Your task to perform on an android device: stop showing notifications on the lock screen Image 0: 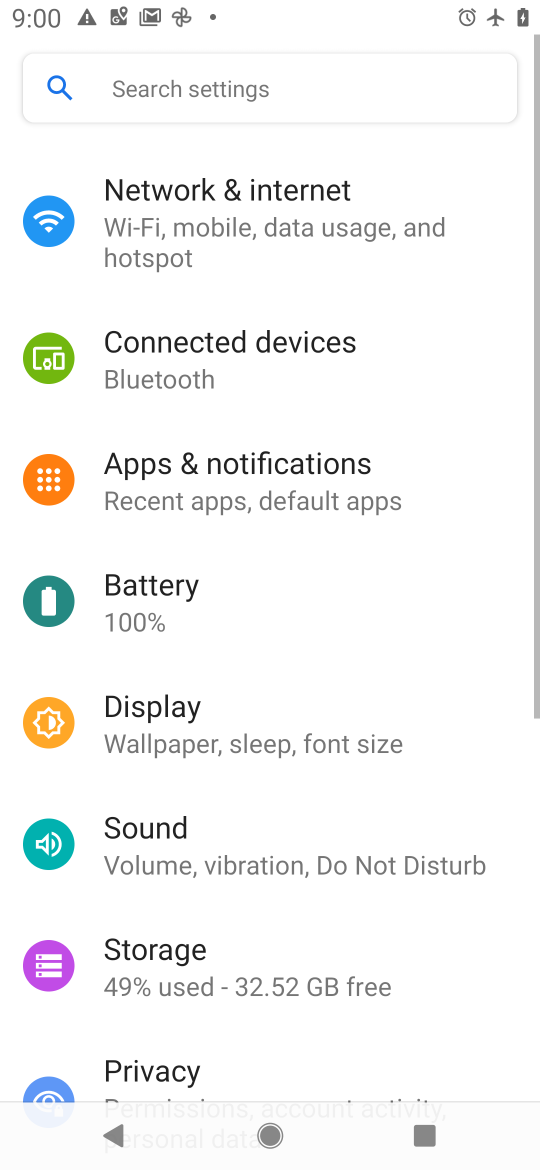
Step 0: drag from (505, 949) to (323, 163)
Your task to perform on an android device: stop showing notifications on the lock screen Image 1: 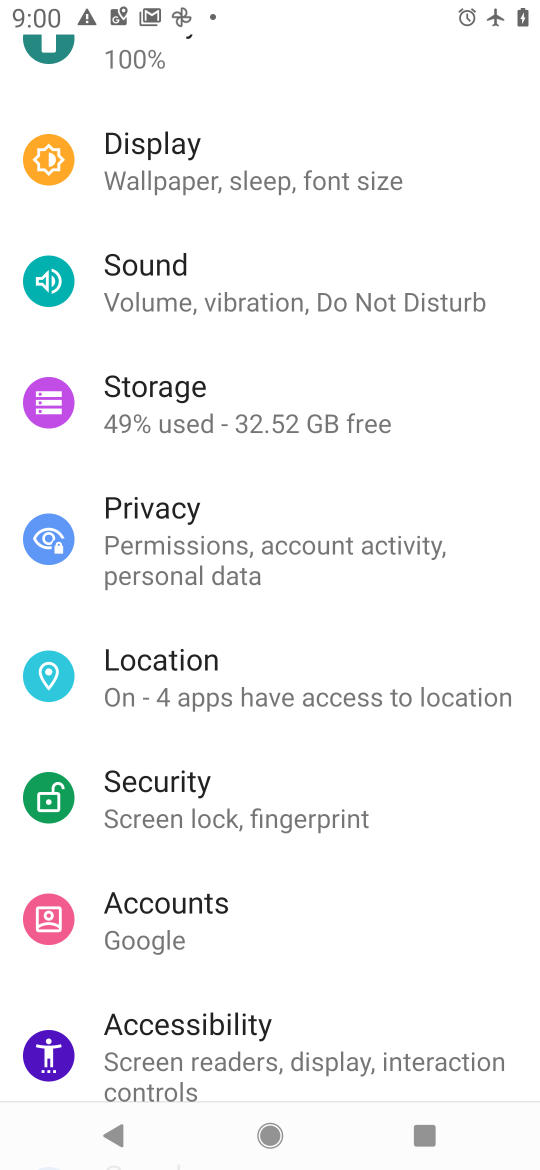
Step 1: drag from (297, 241) to (370, 1048)
Your task to perform on an android device: stop showing notifications on the lock screen Image 2: 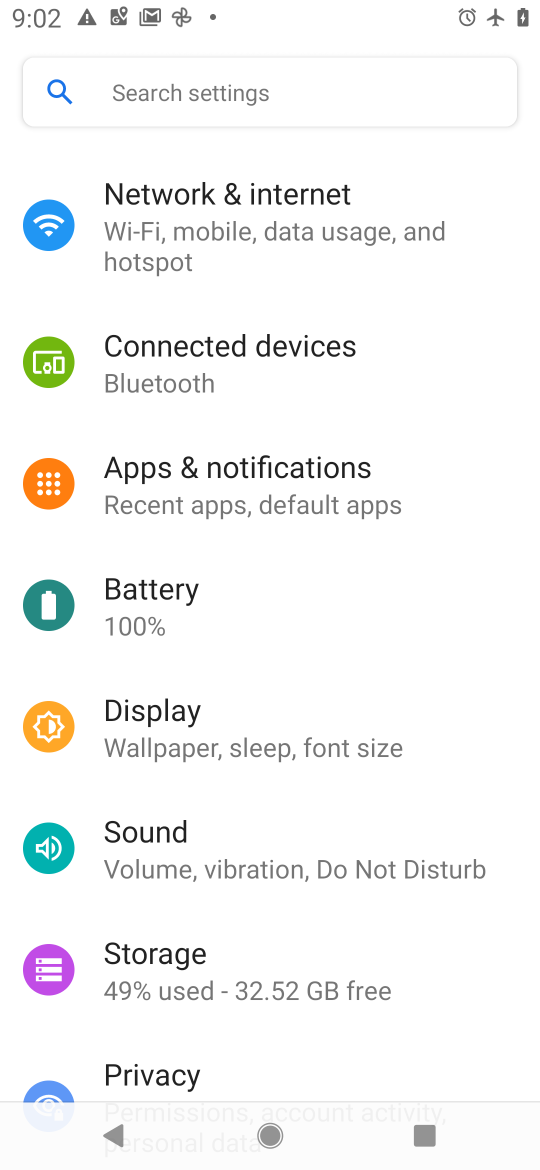
Step 2: click (236, 461)
Your task to perform on an android device: stop showing notifications on the lock screen Image 3: 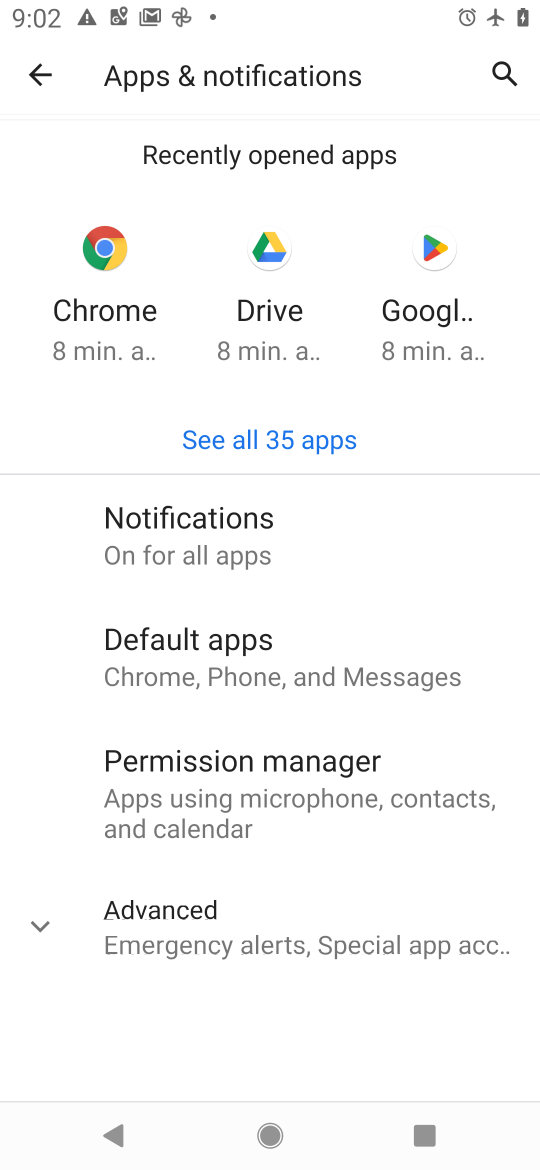
Step 3: click (194, 554)
Your task to perform on an android device: stop showing notifications on the lock screen Image 4: 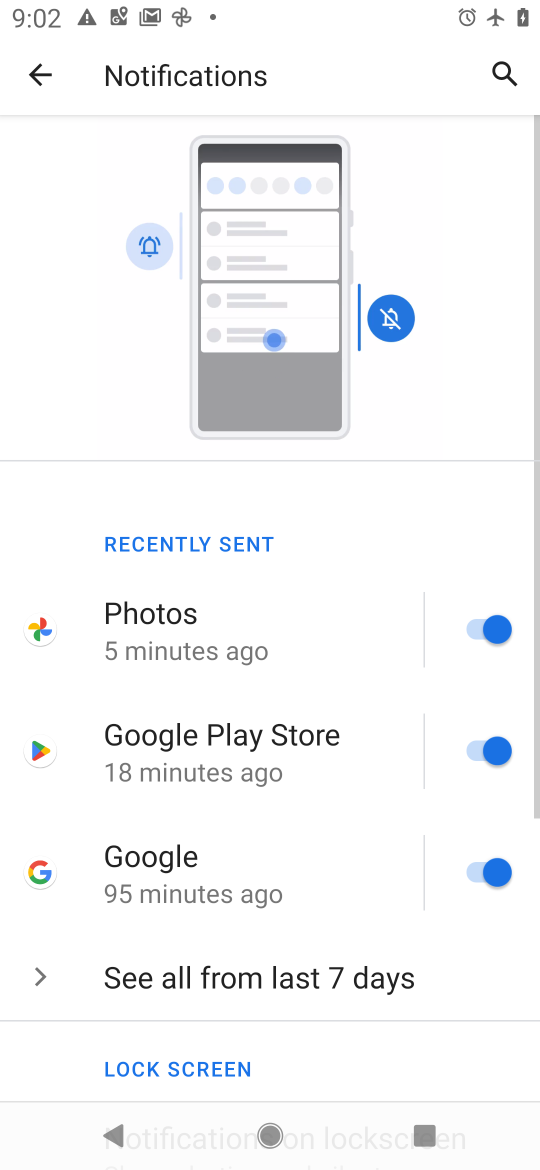
Step 4: drag from (176, 1022) to (87, 75)
Your task to perform on an android device: stop showing notifications on the lock screen Image 5: 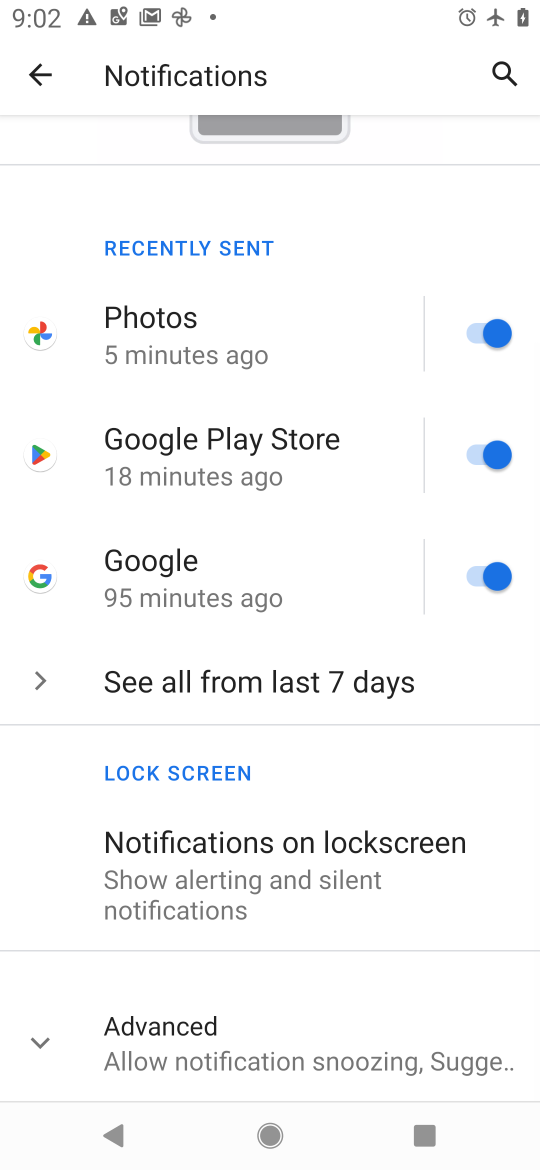
Step 5: click (217, 863)
Your task to perform on an android device: stop showing notifications on the lock screen Image 6: 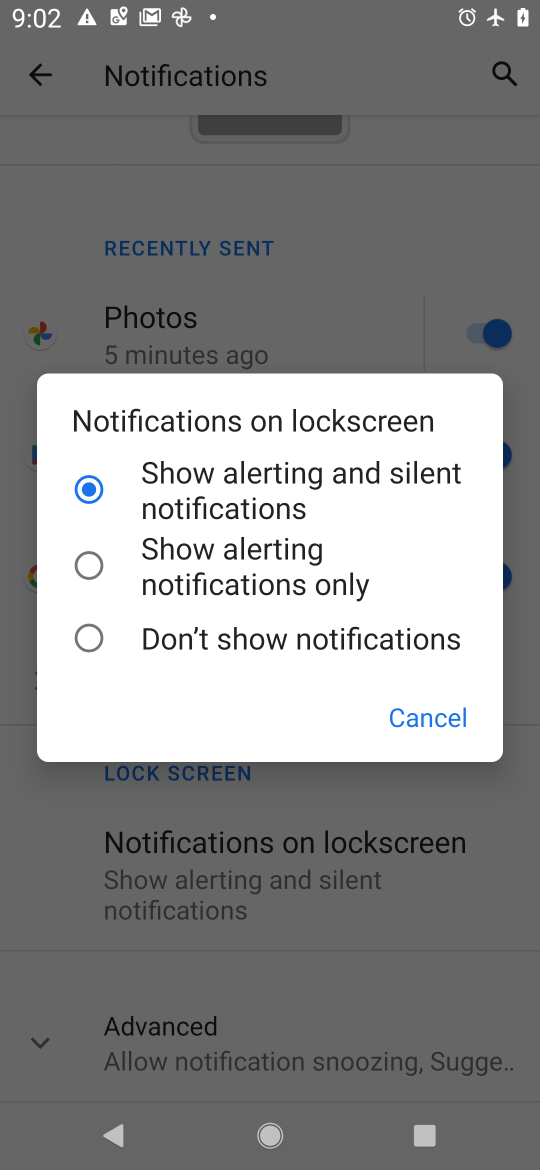
Step 6: click (135, 643)
Your task to perform on an android device: stop showing notifications on the lock screen Image 7: 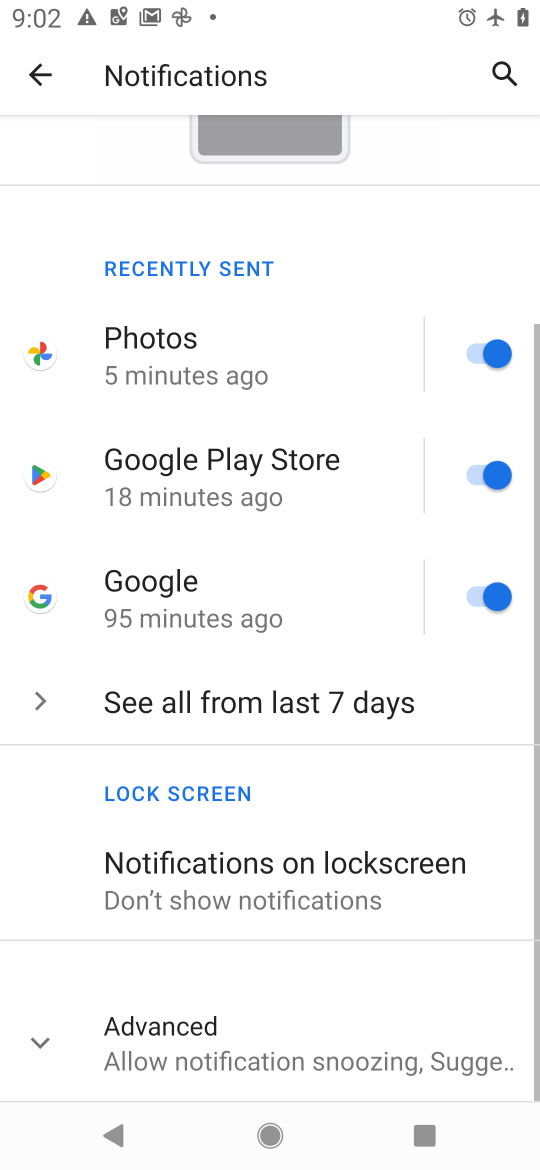
Step 7: task complete